Your task to perform on an android device: Clear the cart on walmart.com. Add "dell alienware" to the cart on walmart.com Image 0: 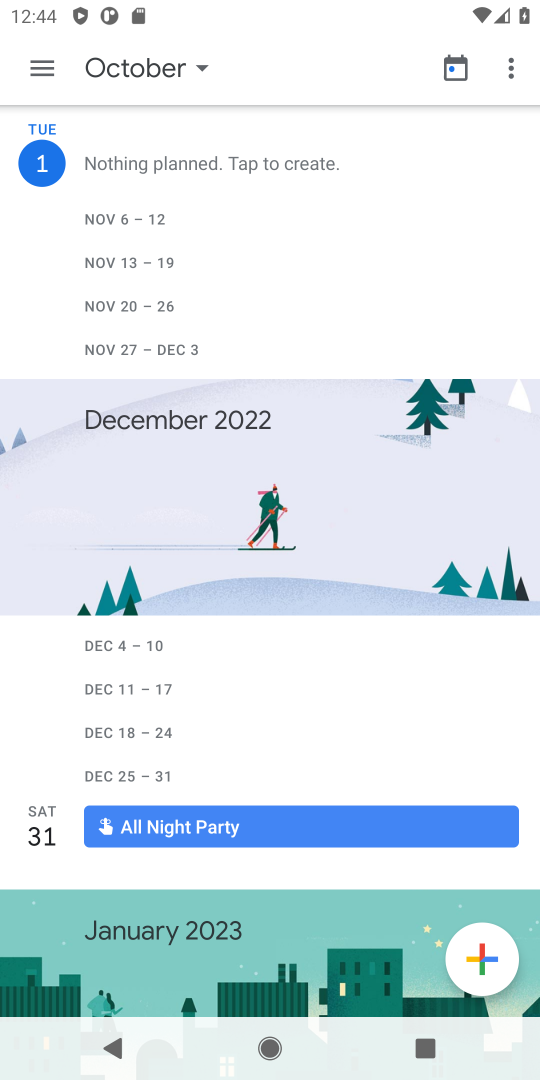
Step 0: press home button
Your task to perform on an android device: Clear the cart on walmart.com. Add "dell alienware" to the cart on walmart.com Image 1: 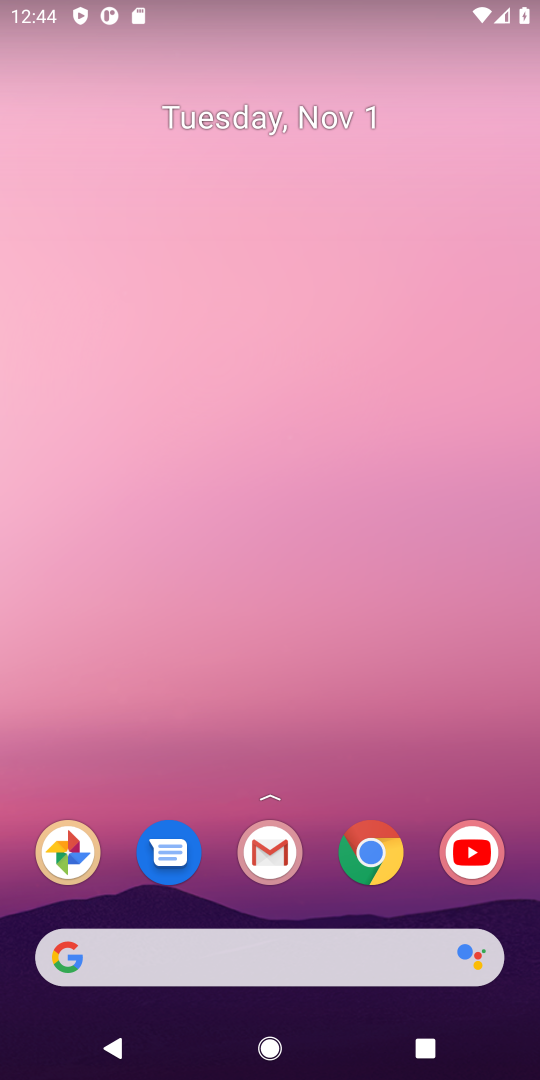
Step 1: click (381, 870)
Your task to perform on an android device: Clear the cart on walmart.com. Add "dell alienware" to the cart on walmart.com Image 2: 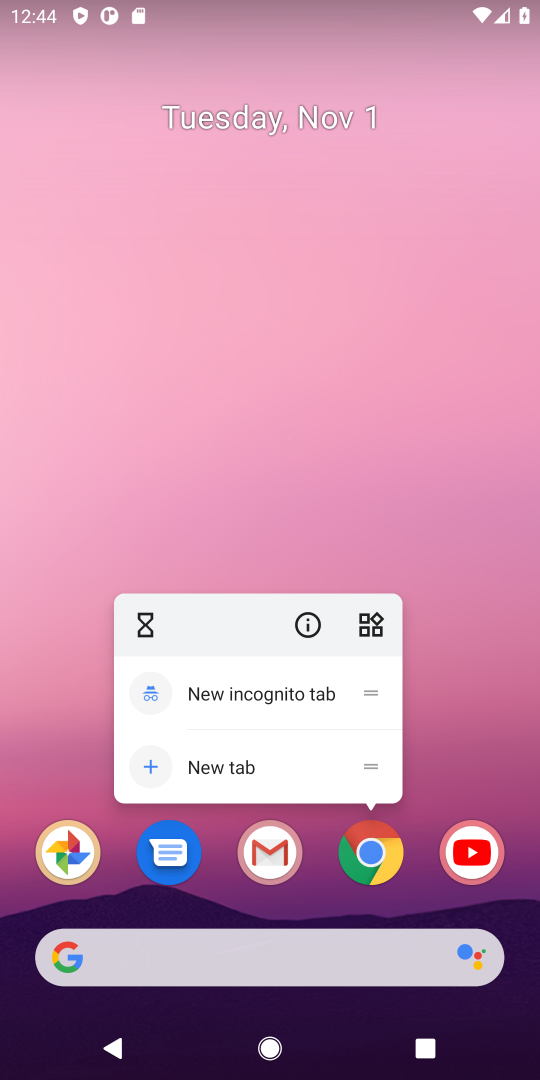
Step 2: click (383, 855)
Your task to perform on an android device: Clear the cart on walmart.com. Add "dell alienware" to the cart on walmart.com Image 3: 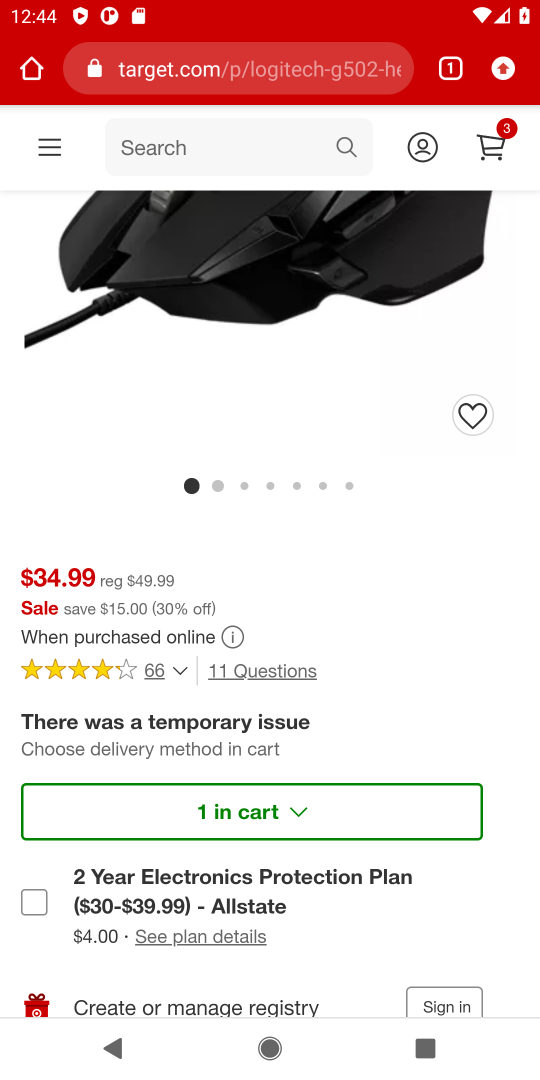
Step 3: click (263, 63)
Your task to perform on an android device: Clear the cart on walmart.com. Add "dell alienware" to the cart on walmart.com Image 4: 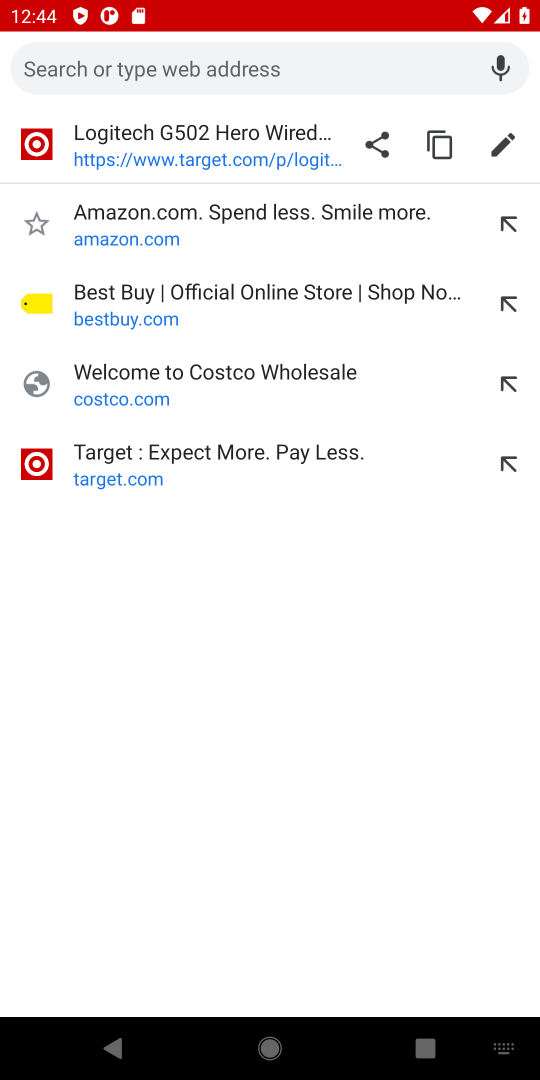
Step 4: type "walmart.com"
Your task to perform on an android device: Clear the cart on walmart.com. Add "dell alienware" to the cart on walmart.com Image 5: 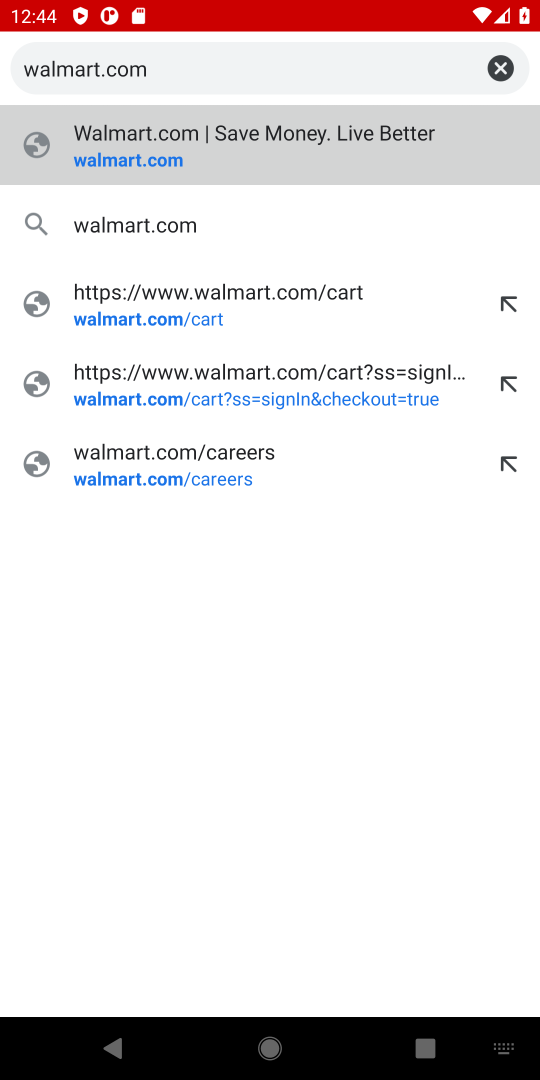
Step 5: type ""
Your task to perform on an android device: Clear the cart on walmart.com. Add "dell alienware" to the cart on walmart.com Image 6: 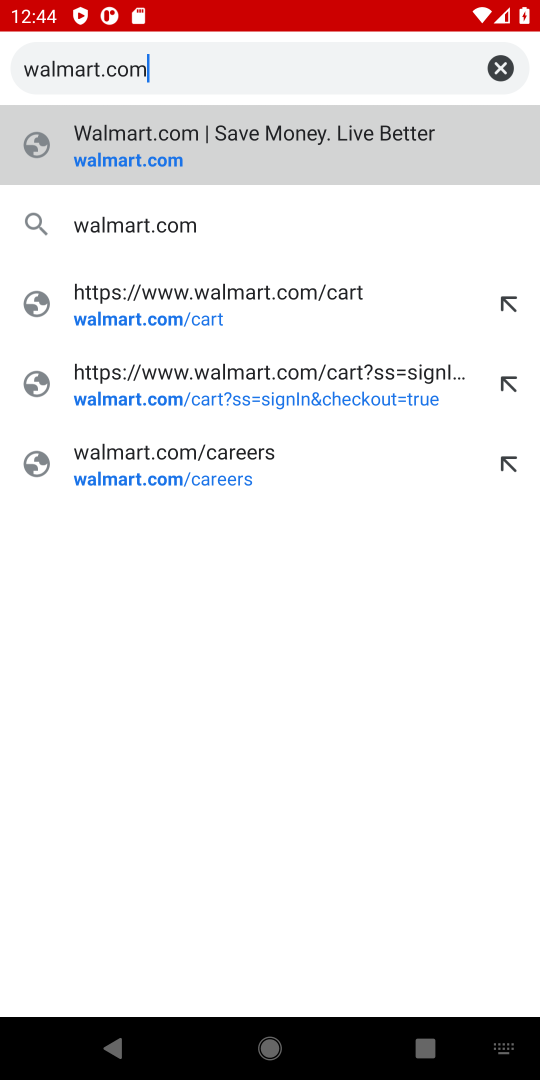
Step 6: press enter
Your task to perform on an android device: Clear the cart on walmart.com. Add "dell alienware" to the cart on walmart.com Image 7: 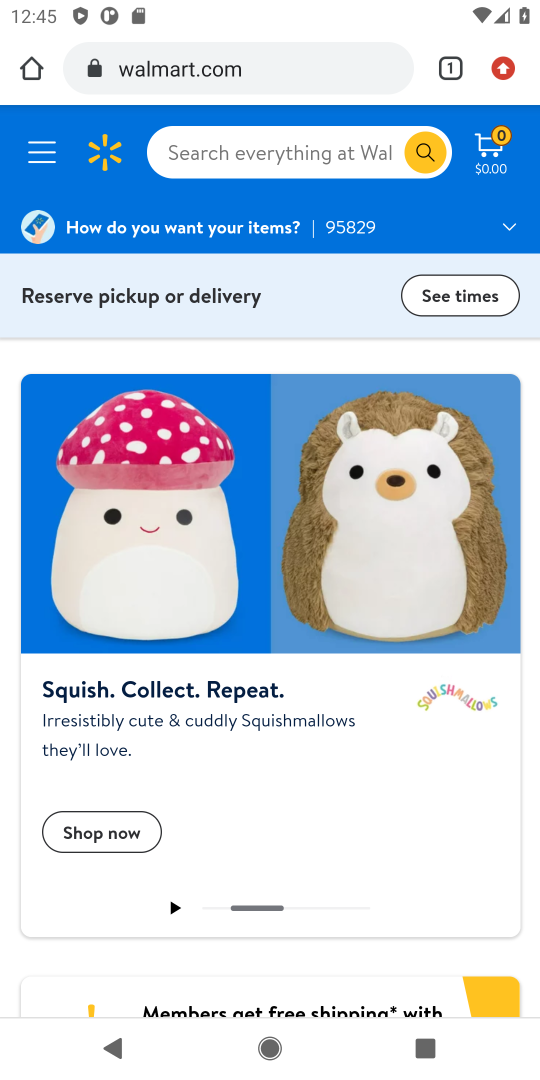
Step 7: click (302, 141)
Your task to perform on an android device: Clear the cart on walmart.com. Add "dell alienware" to the cart on walmart.com Image 8: 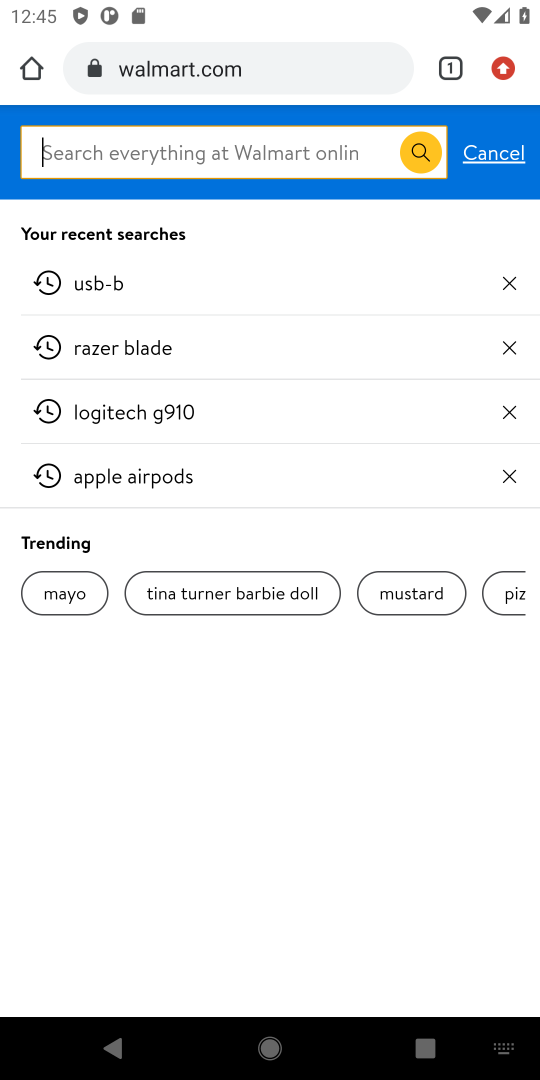
Step 8: click (490, 157)
Your task to perform on an android device: Clear the cart on walmart.com. Add "dell alienware" to the cart on walmart.com Image 9: 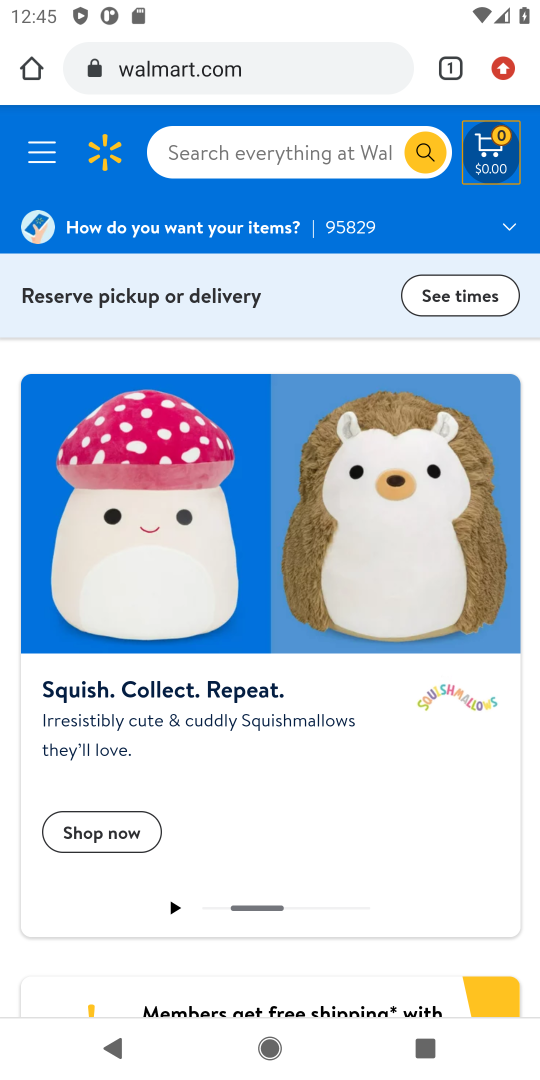
Step 9: click (490, 162)
Your task to perform on an android device: Clear the cart on walmart.com. Add "dell alienware" to the cart on walmart.com Image 10: 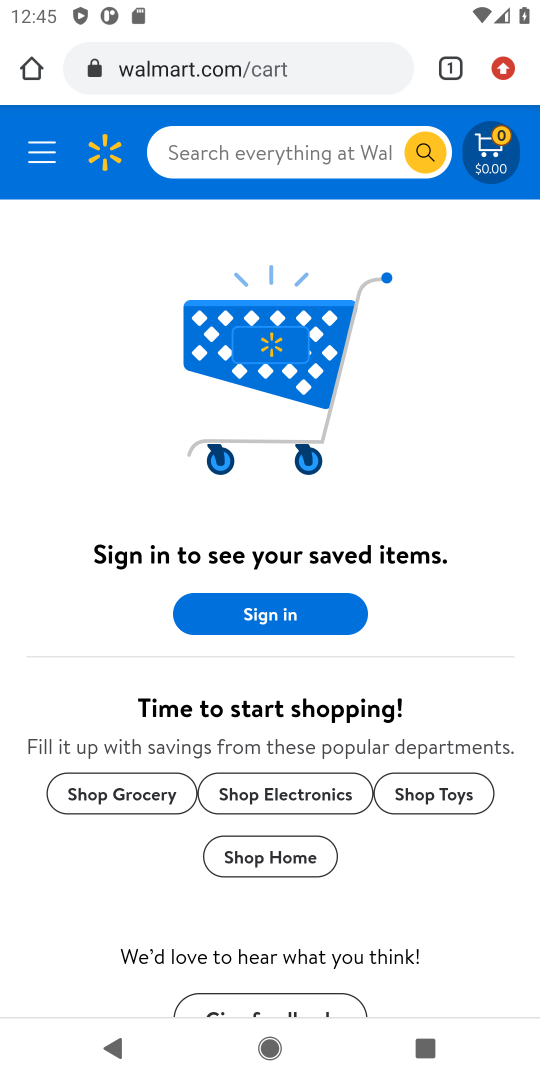
Step 10: click (308, 155)
Your task to perform on an android device: Clear the cart on walmart.com. Add "dell alienware" to the cart on walmart.com Image 11: 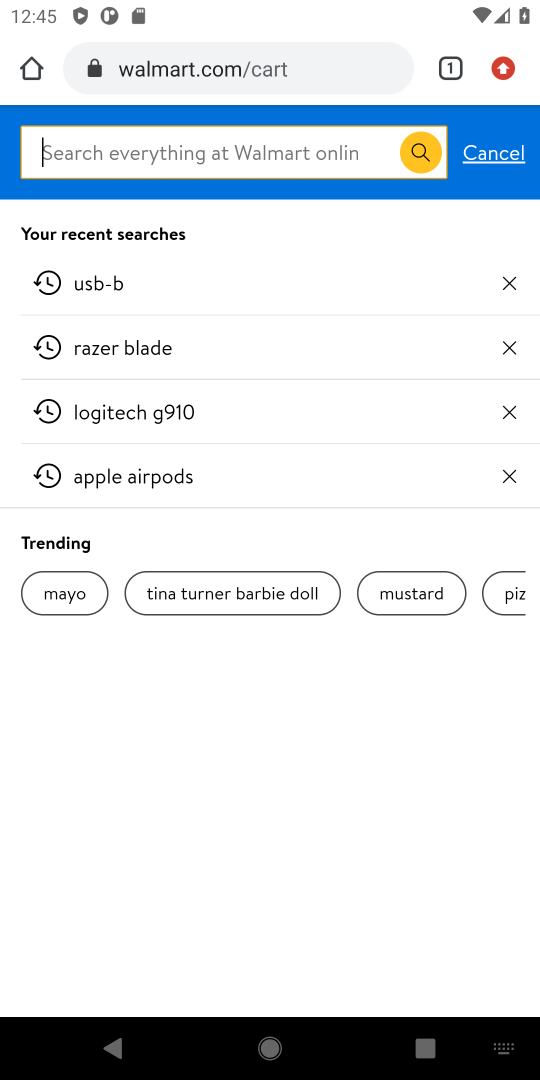
Step 11: type "dell alienware"
Your task to perform on an android device: Clear the cart on walmart.com. Add "dell alienware" to the cart on walmart.com Image 12: 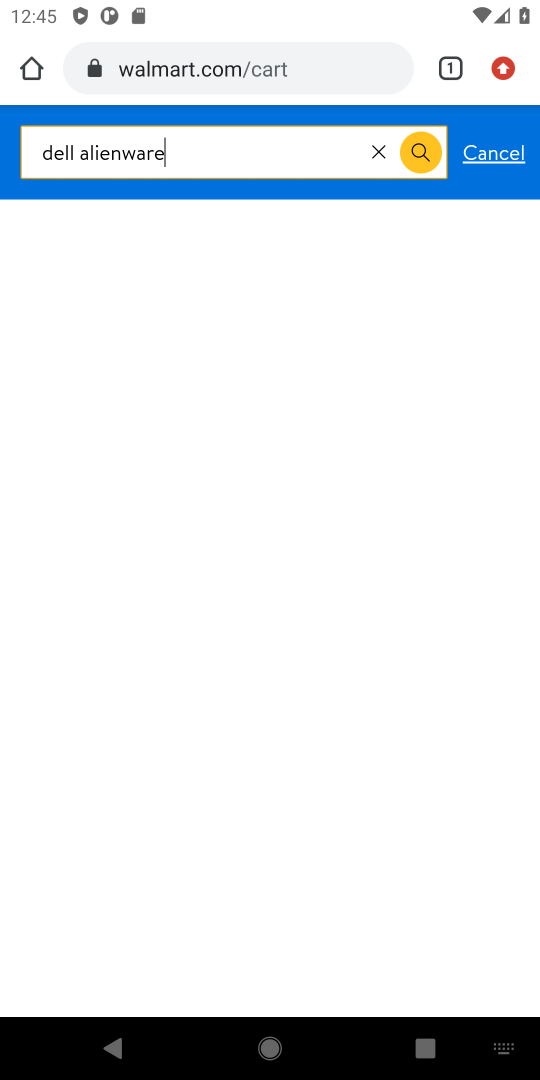
Step 12: type ""
Your task to perform on an android device: Clear the cart on walmart.com. Add "dell alienware" to the cart on walmart.com Image 13: 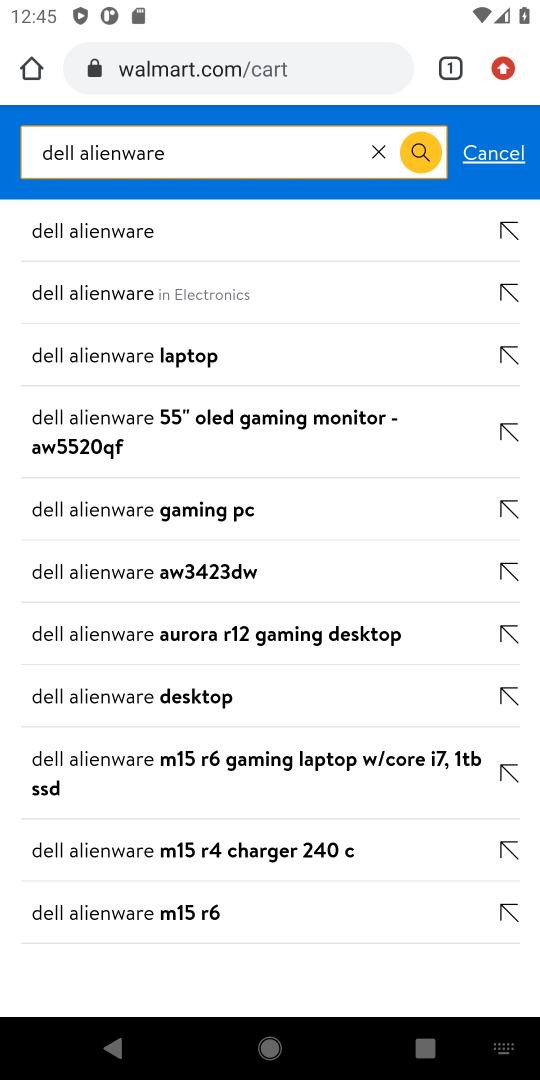
Step 13: press enter
Your task to perform on an android device: Clear the cart on walmart.com. Add "dell alienware" to the cart on walmart.com Image 14: 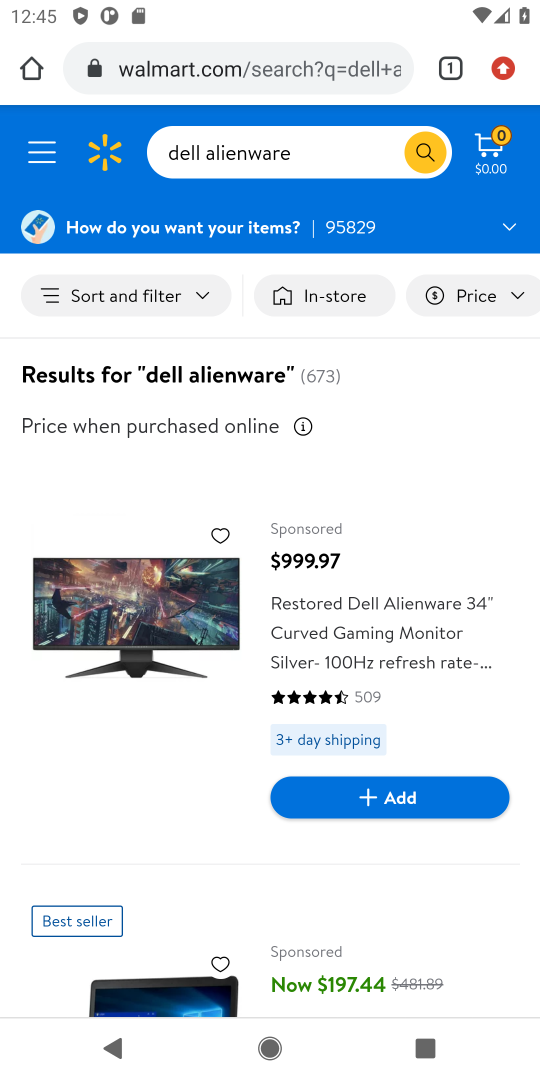
Step 14: click (361, 623)
Your task to perform on an android device: Clear the cart on walmart.com. Add "dell alienware" to the cart on walmart.com Image 15: 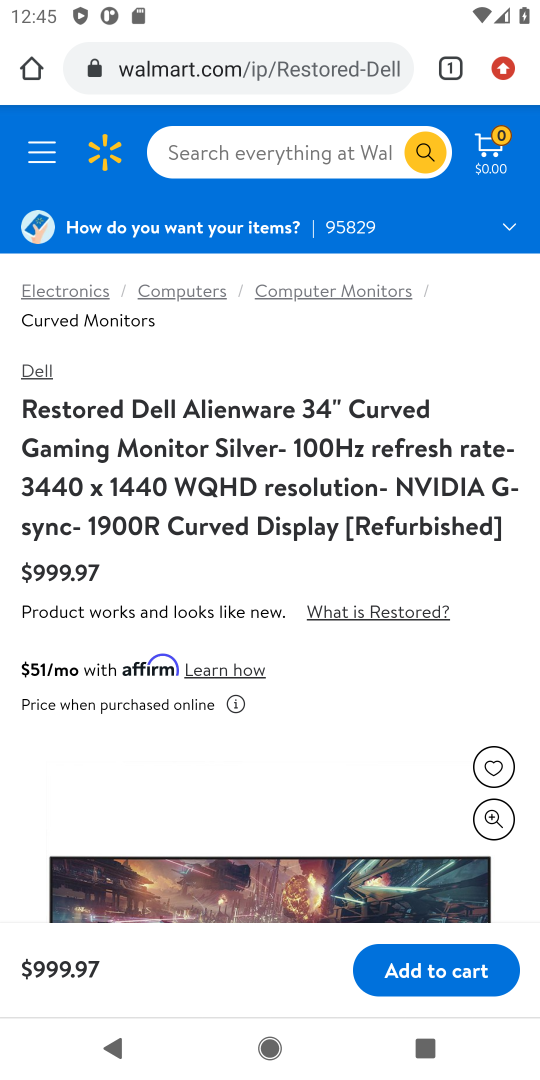
Step 15: click (442, 973)
Your task to perform on an android device: Clear the cart on walmart.com. Add "dell alienware" to the cart on walmart.com Image 16: 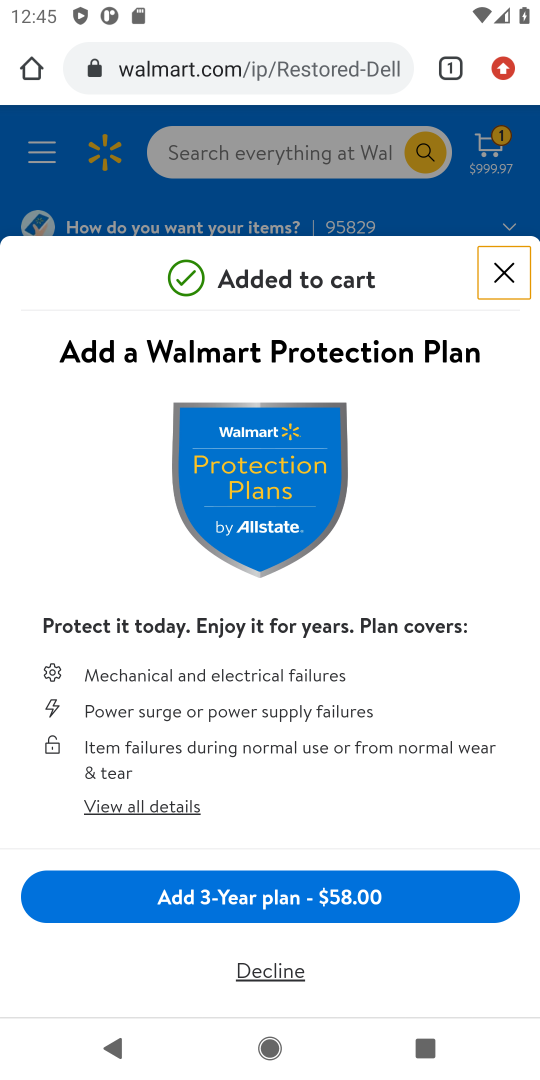
Step 16: click (267, 971)
Your task to perform on an android device: Clear the cart on walmart.com. Add "dell alienware" to the cart on walmart.com Image 17: 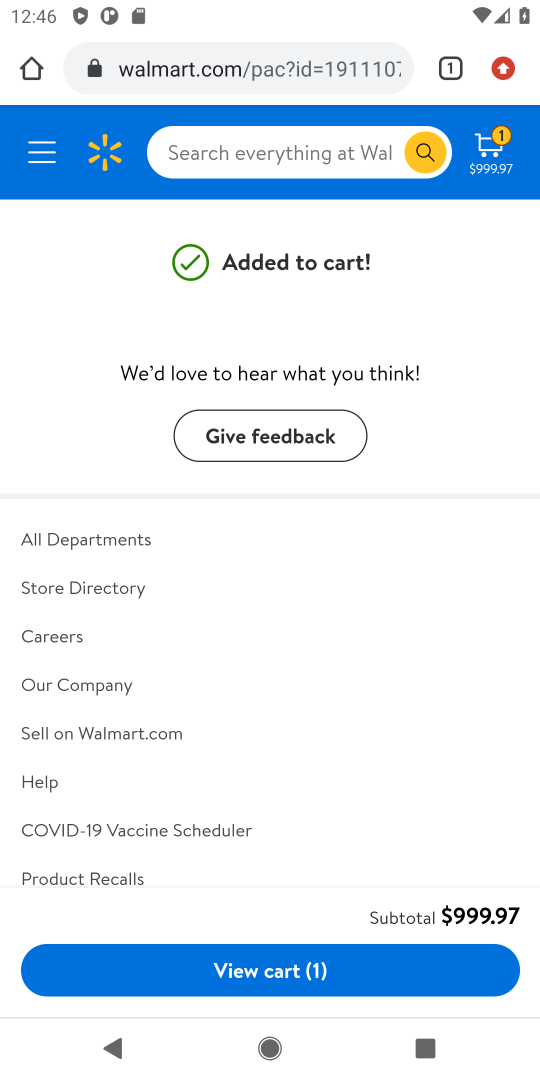
Step 17: click (310, 983)
Your task to perform on an android device: Clear the cart on walmart.com. Add "dell alienware" to the cart on walmart.com Image 18: 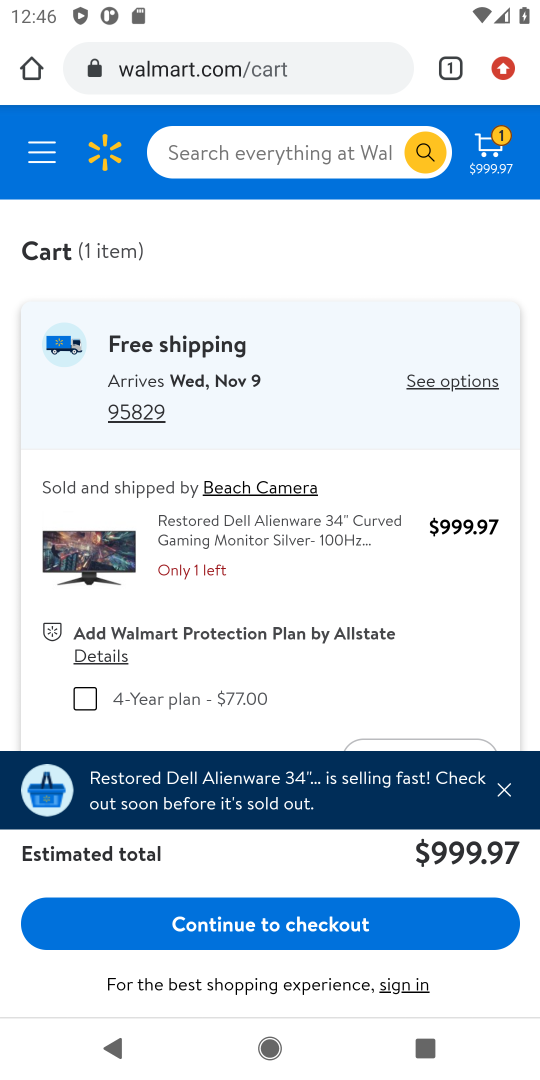
Step 18: task complete